Your task to perform on an android device: see tabs open on other devices in the chrome app Image 0: 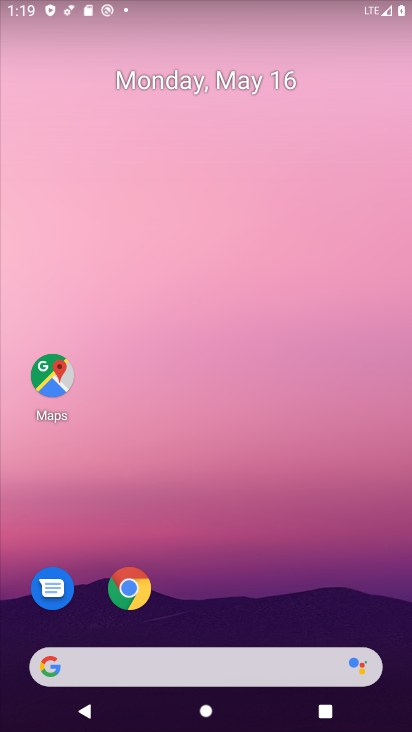
Step 0: click (129, 589)
Your task to perform on an android device: see tabs open on other devices in the chrome app Image 1: 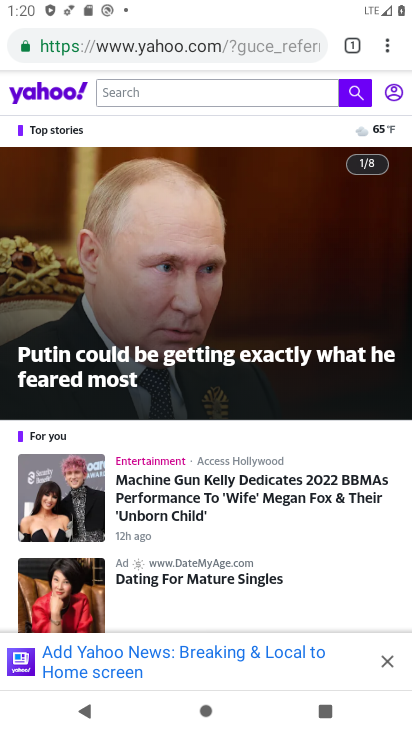
Step 1: click (389, 46)
Your task to perform on an android device: see tabs open on other devices in the chrome app Image 2: 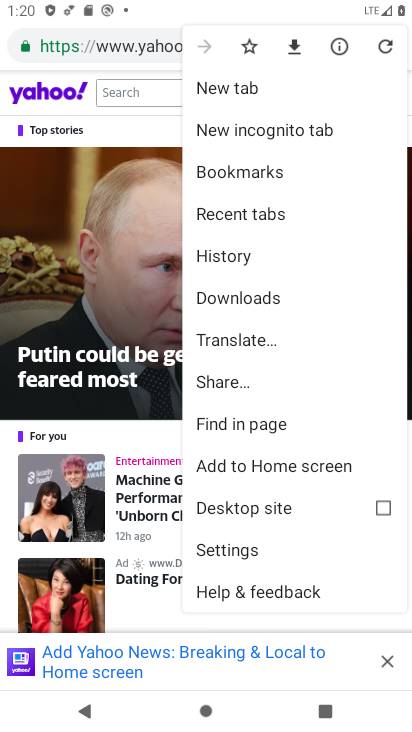
Step 2: click (280, 219)
Your task to perform on an android device: see tabs open on other devices in the chrome app Image 3: 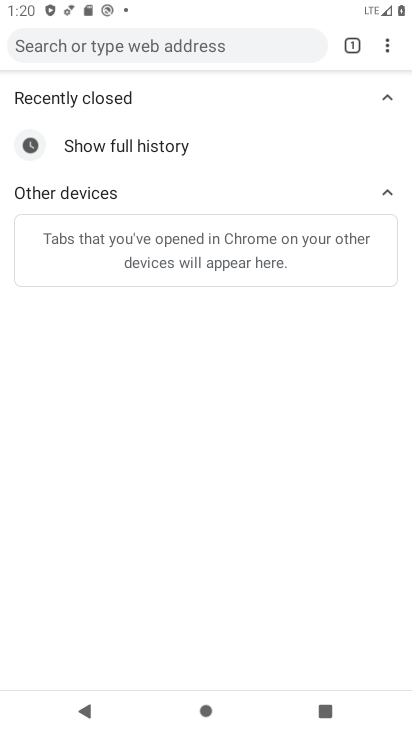
Step 3: task complete